Your task to perform on an android device: turn on sleep mode Image 0: 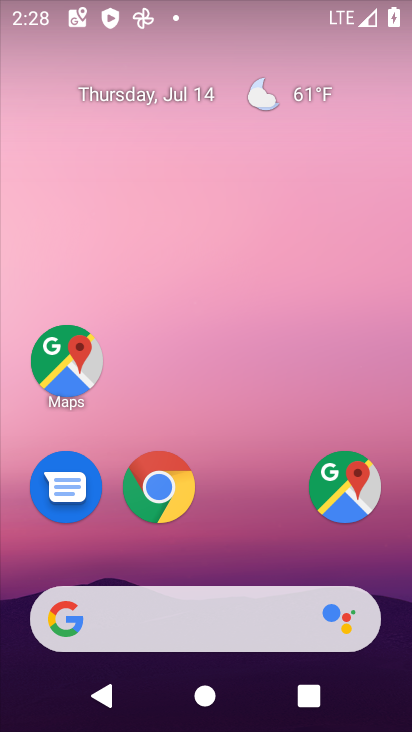
Step 0: drag from (248, 537) to (295, 199)
Your task to perform on an android device: turn on sleep mode Image 1: 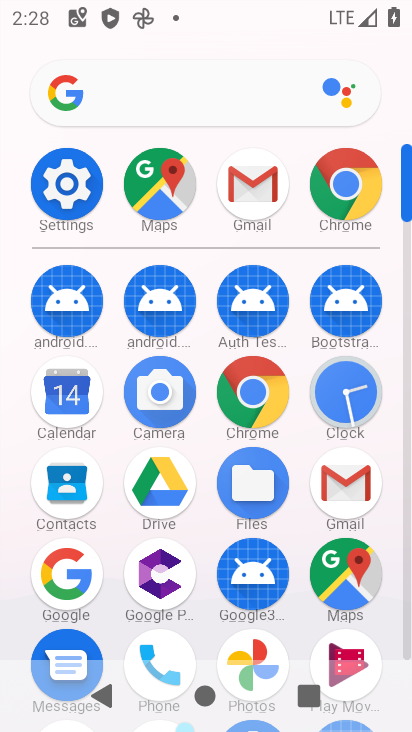
Step 1: click (80, 199)
Your task to perform on an android device: turn on sleep mode Image 2: 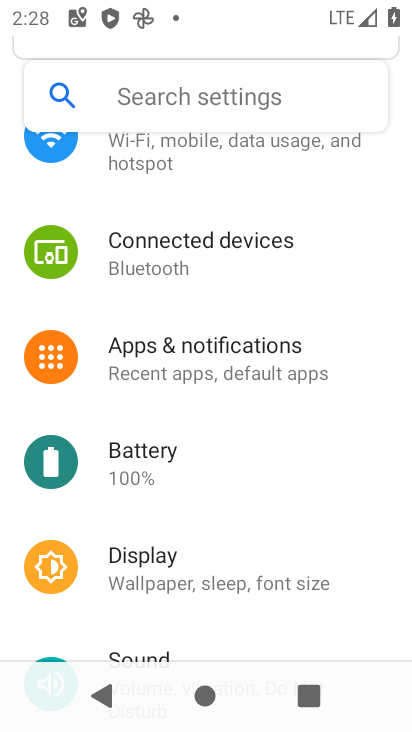
Step 2: drag from (332, 446) to (332, 280)
Your task to perform on an android device: turn on sleep mode Image 3: 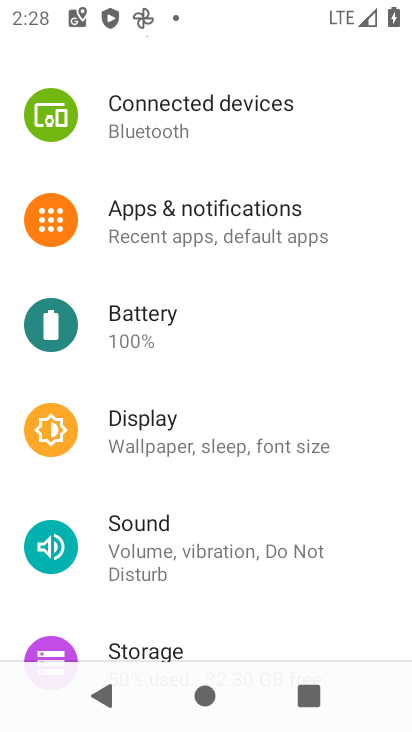
Step 3: drag from (342, 610) to (342, 504)
Your task to perform on an android device: turn on sleep mode Image 4: 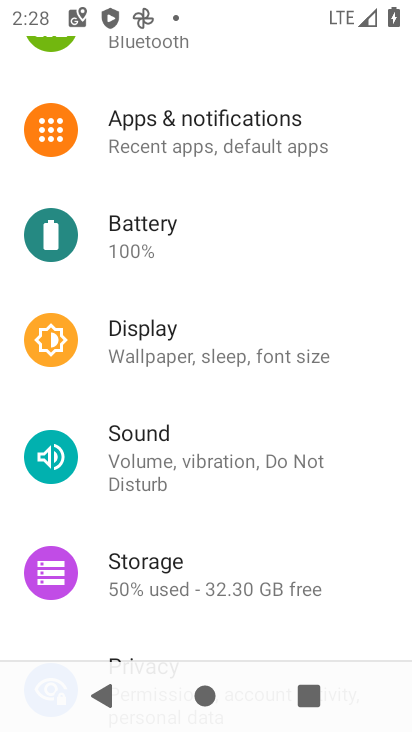
Step 4: drag from (354, 606) to (354, 514)
Your task to perform on an android device: turn on sleep mode Image 5: 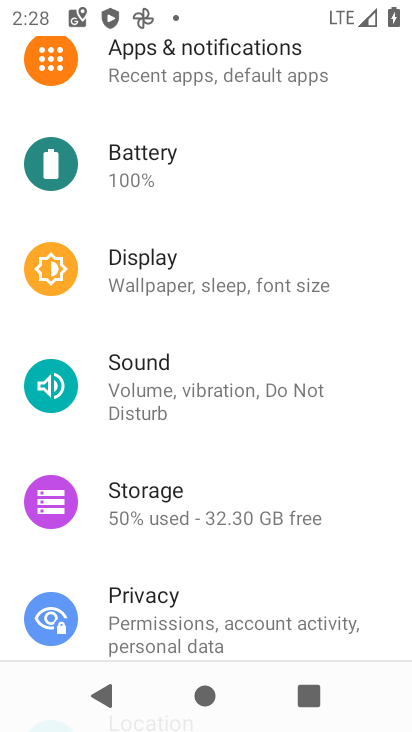
Step 5: drag from (347, 584) to (350, 466)
Your task to perform on an android device: turn on sleep mode Image 6: 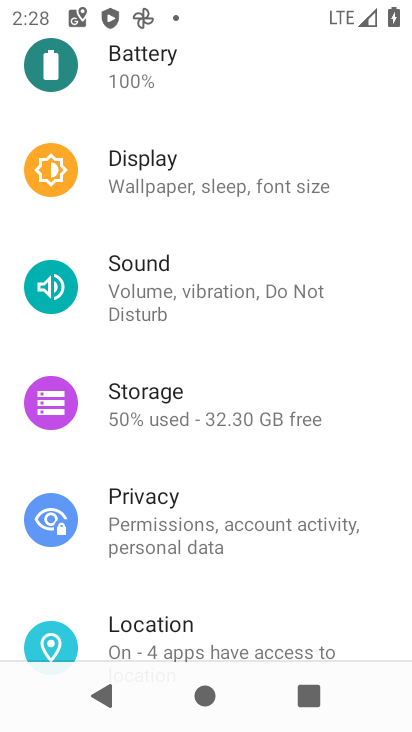
Step 6: drag from (346, 596) to (360, 489)
Your task to perform on an android device: turn on sleep mode Image 7: 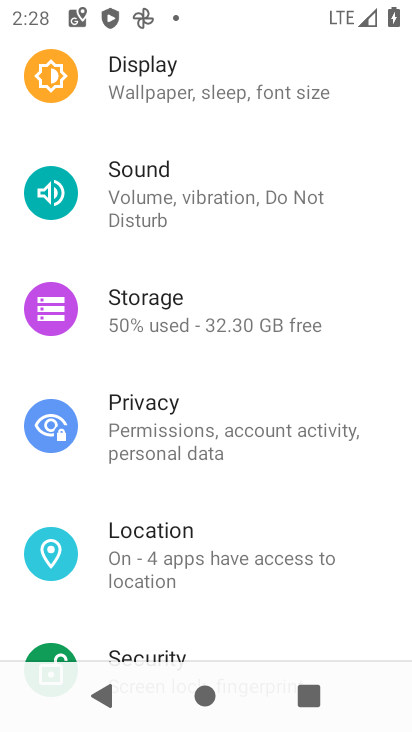
Step 7: drag from (352, 609) to (357, 512)
Your task to perform on an android device: turn on sleep mode Image 8: 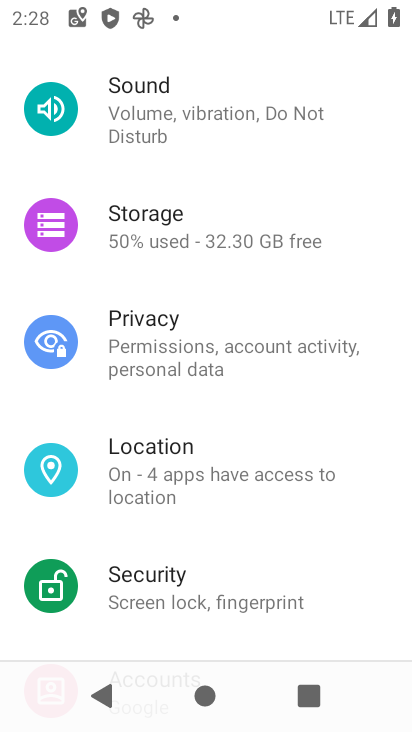
Step 8: drag from (368, 599) to (369, 408)
Your task to perform on an android device: turn on sleep mode Image 9: 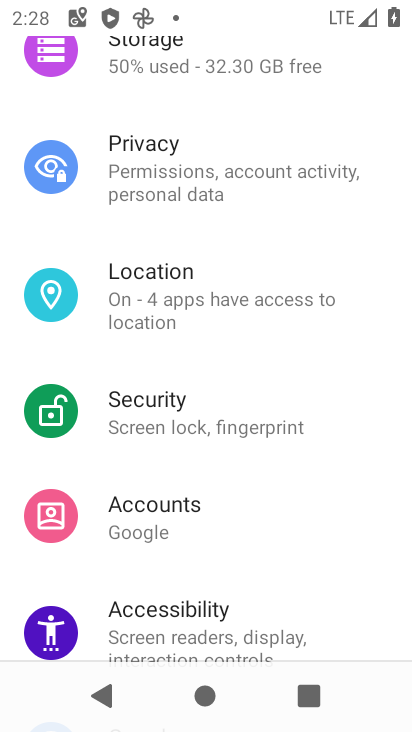
Step 9: drag from (346, 360) to (356, 527)
Your task to perform on an android device: turn on sleep mode Image 10: 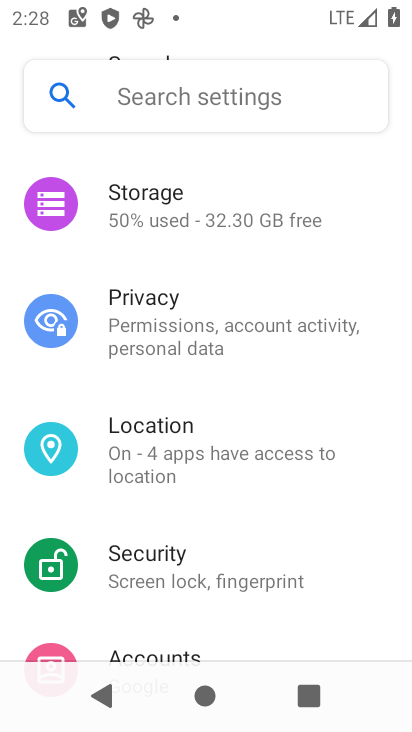
Step 10: drag from (358, 398) to (365, 643)
Your task to perform on an android device: turn on sleep mode Image 11: 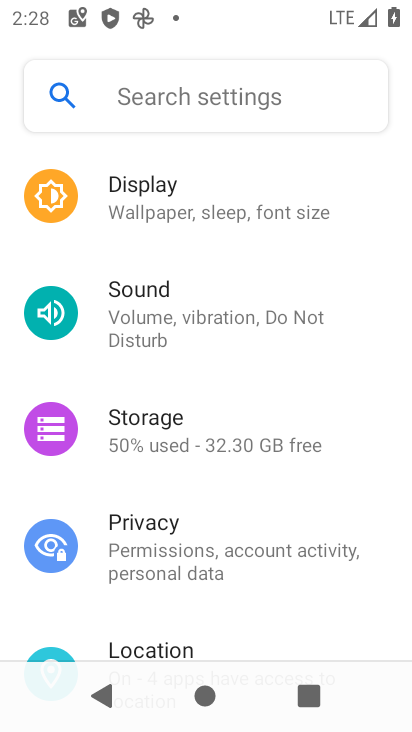
Step 11: drag from (351, 385) to (358, 513)
Your task to perform on an android device: turn on sleep mode Image 12: 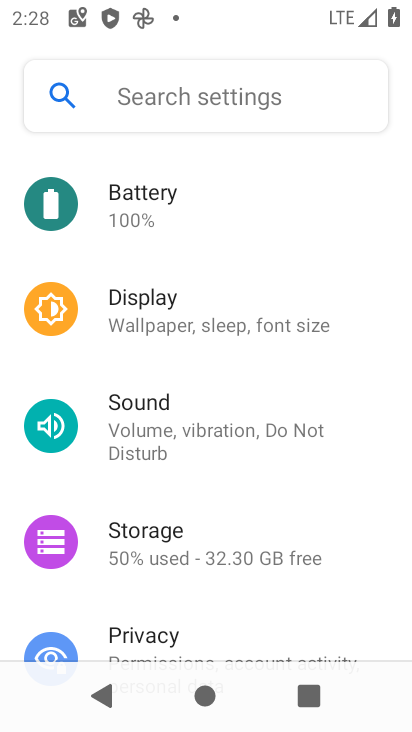
Step 12: drag from (357, 403) to (353, 546)
Your task to perform on an android device: turn on sleep mode Image 13: 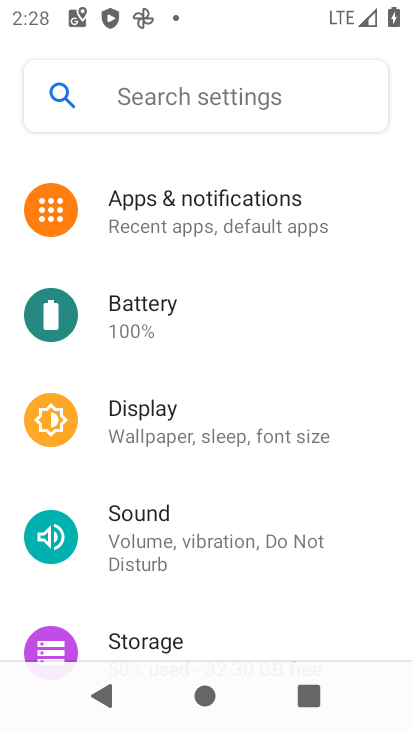
Step 13: click (292, 440)
Your task to perform on an android device: turn on sleep mode Image 14: 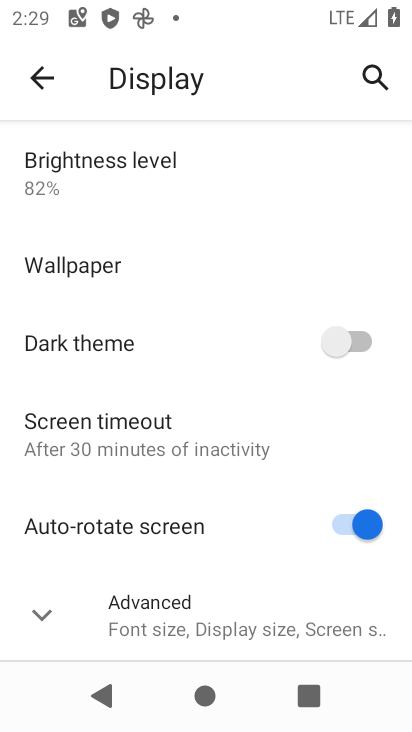
Step 14: click (218, 611)
Your task to perform on an android device: turn on sleep mode Image 15: 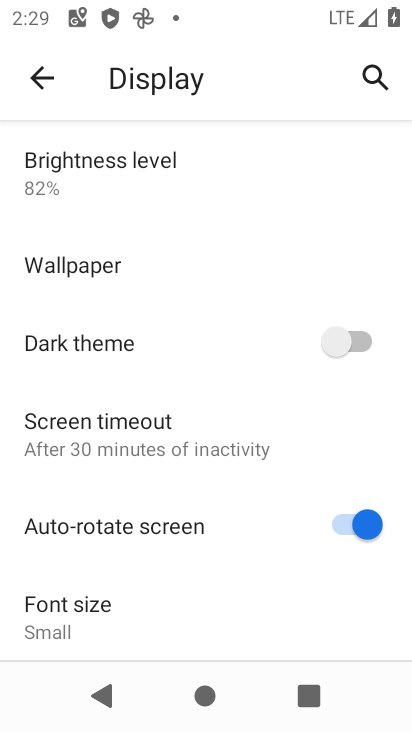
Step 15: task complete